Your task to perform on an android device: manage bookmarks in the chrome app Image 0: 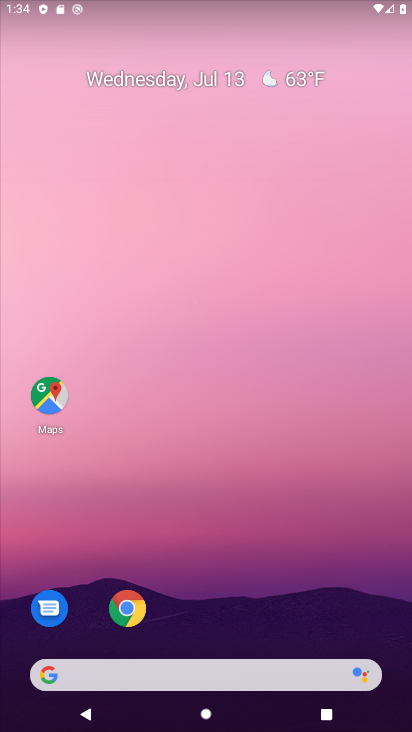
Step 0: drag from (233, 624) to (217, 110)
Your task to perform on an android device: manage bookmarks in the chrome app Image 1: 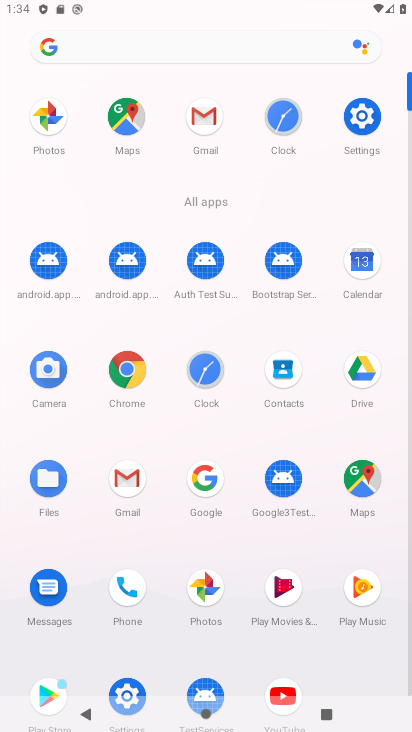
Step 1: click (127, 381)
Your task to perform on an android device: manage bookmarks in the chrome app Image 2: 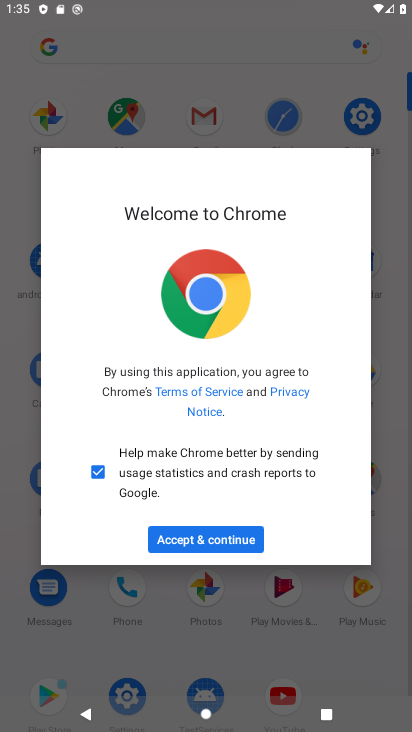
Step 2: click (193, 549)
Your task to perform on an android device: manage bookmarks in the chrome app Image 3: 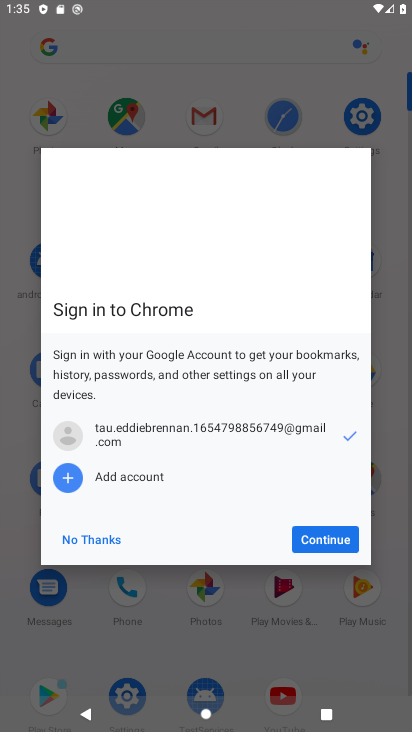
Step 3: click (319, 543)
Your task to perform on an android device: manage bookmarks in the chrome app Image 4: 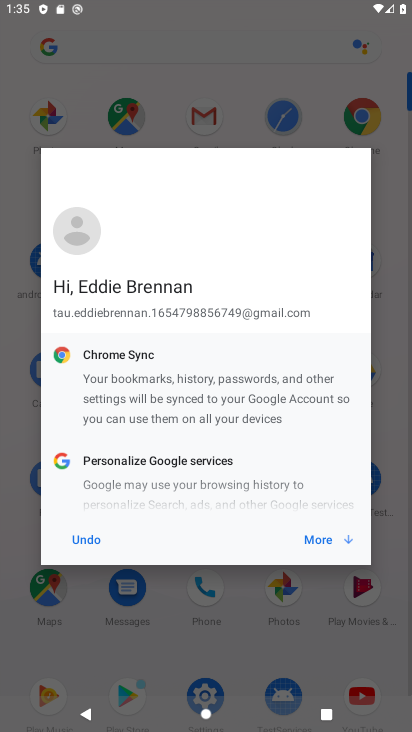
Step 4: click (338, 533)
Your task to perform on an android device: manage bookmarks in the chrome app Image 5: 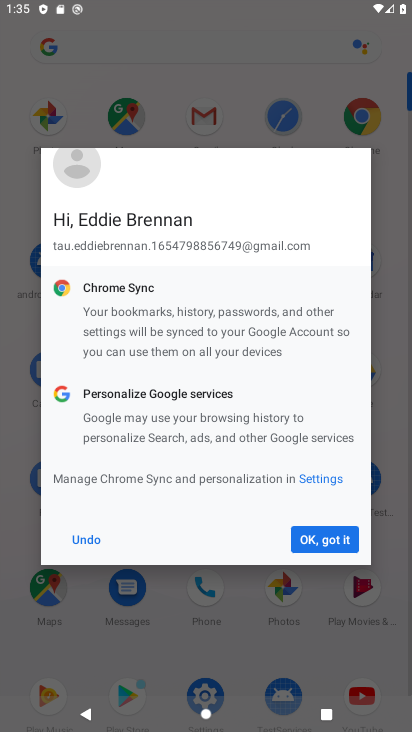
Step 5: click (327, 534)
Your task to perform on an android device: manage bookmarks in the chrome app Image 6: 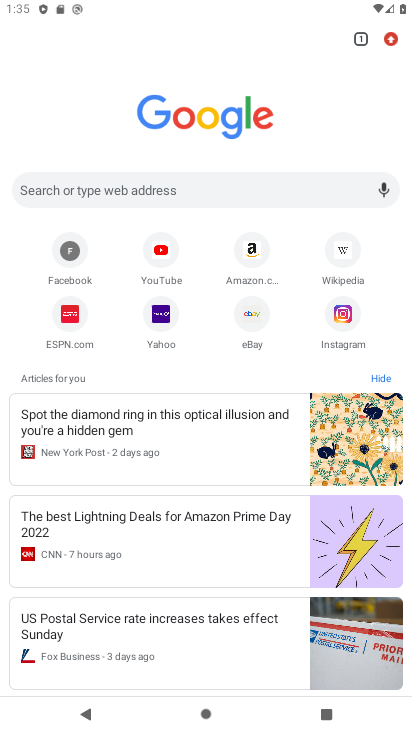
Step 6: click (376, 39)
Your task to perform on an android device: manage bookmarks in the chrome app Image 7: 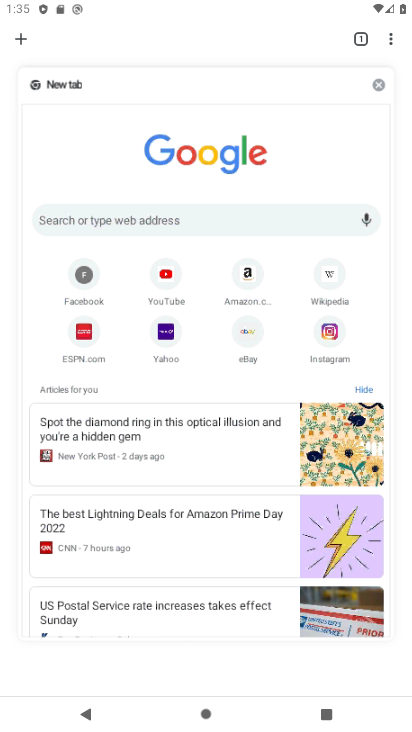
Step 7: click (392, 38)
Your task to perform on an android device: manage bookmarks in the chrome app Image 8: 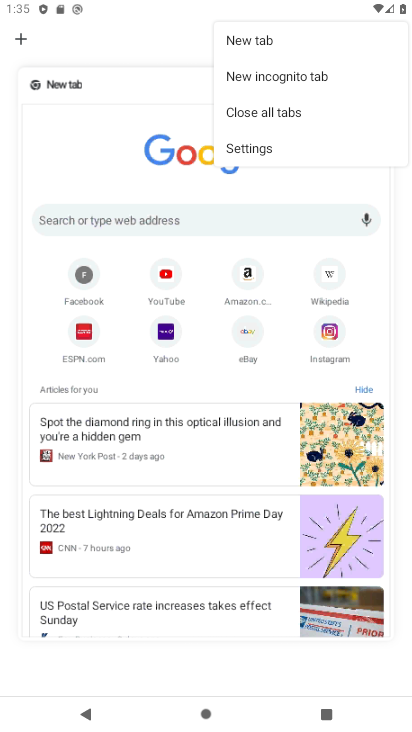
Step 8: click (181, 196)
Your task to perform on an android device: manage bookmarks in the chrome app Image 9: 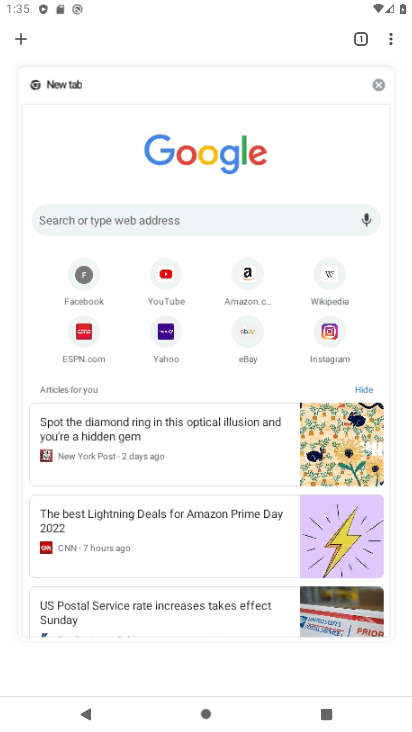
Step 9: click (275, 126)
Your task to perform on an android device: manage bookmarks in the chrome app Image 10: 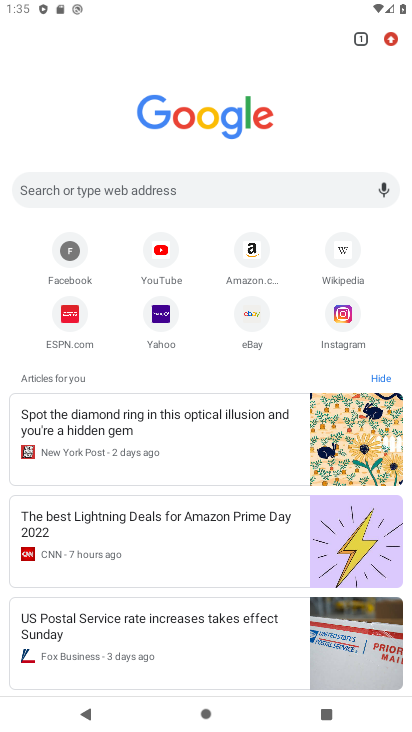
Step 10: click (390, 36)
Your task to perform on an android device: manage bookmarks in the chrome app Image 11: 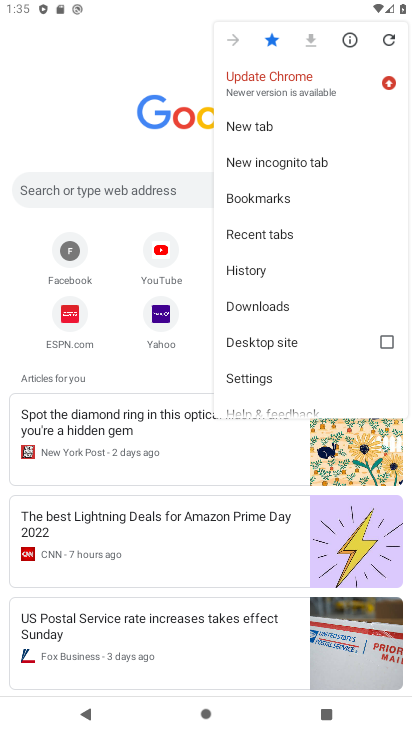
Step 11: click (263, 202)
Your task to perform on an android device: manage bookmarks in the chrome app Image 12: 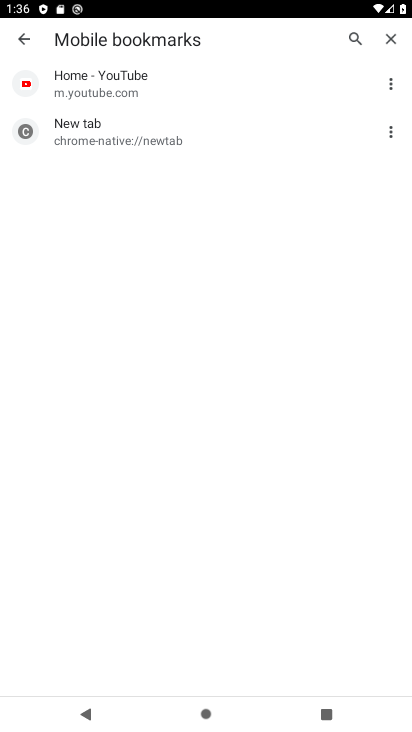
Step 12: click (165, 126)
Your task to perform on an android device: manage bookmarks in the chrome app Image 13: 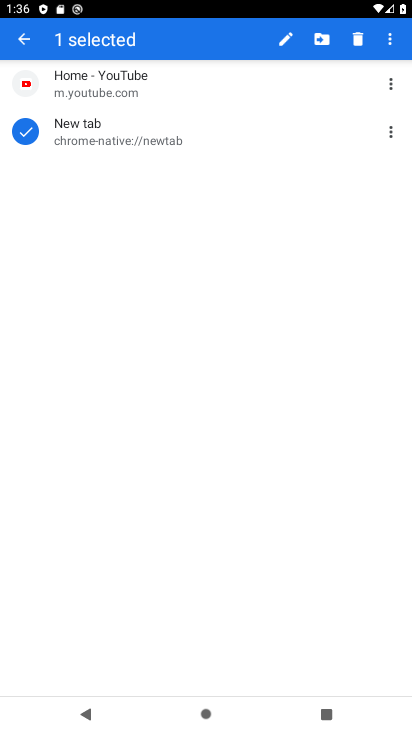
Step 13: click (289, 42)
Your task to perform on an android device: manage bookmarks in the chrome app Image 14: 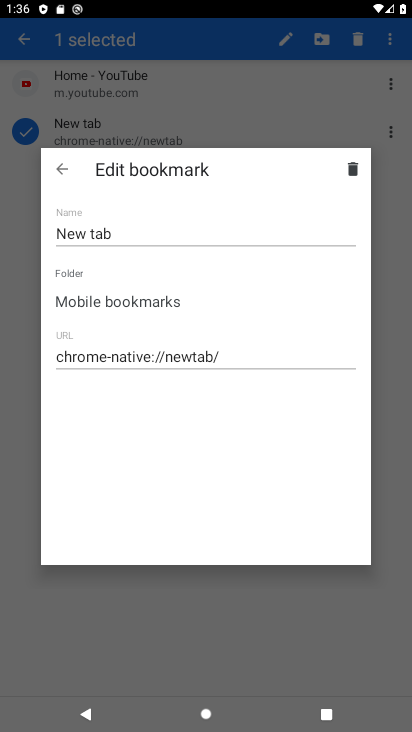
Step 14: click (218, 231)
Your task to perform on an android device: manage bookmarks in the chrome app Image 15: 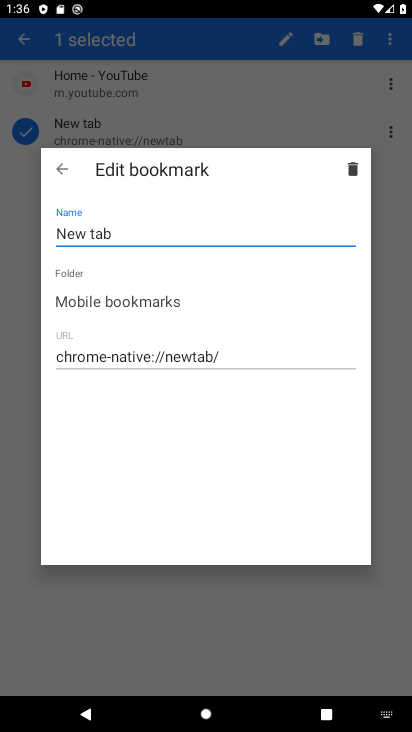
Step 15: type "h"
Your task to perform on an android device: manage bookmarks in the chrome app Image 16: 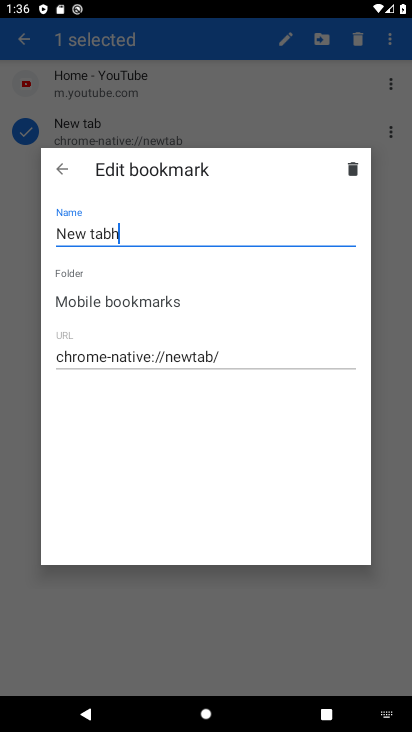
Step 16: type ""
Your task to perform on an android device: manage bookmarks in the chrome app Image 17: 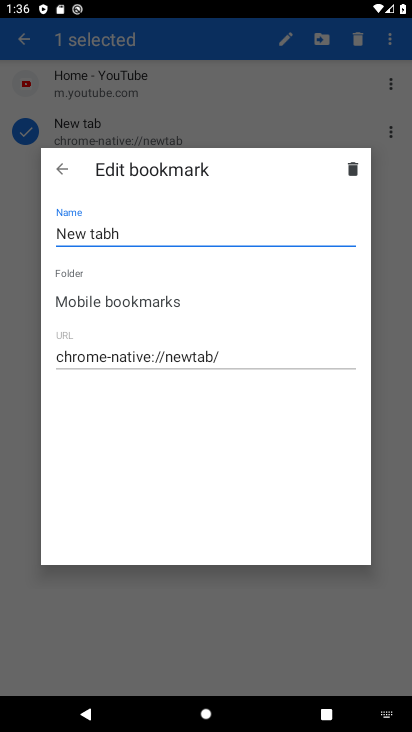
Step 17: click (287, 80)
Your task to perform on an android device: manage bookmarks in the chrome app Image 18: 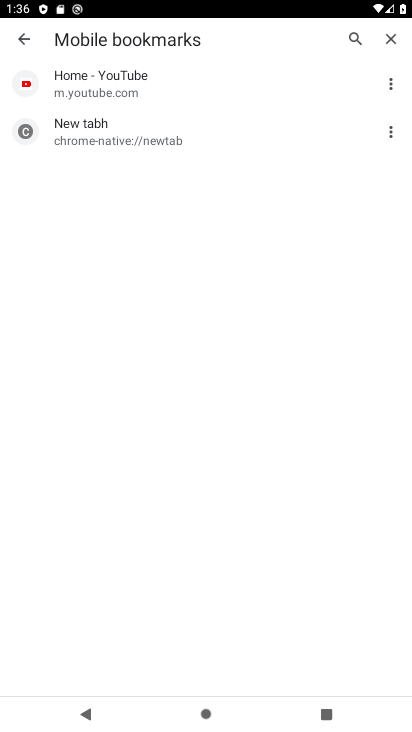
Step 18: task complete